Your task to perform on an android device: Add "rayovac triple a" to the cart on costco.com Image 0: 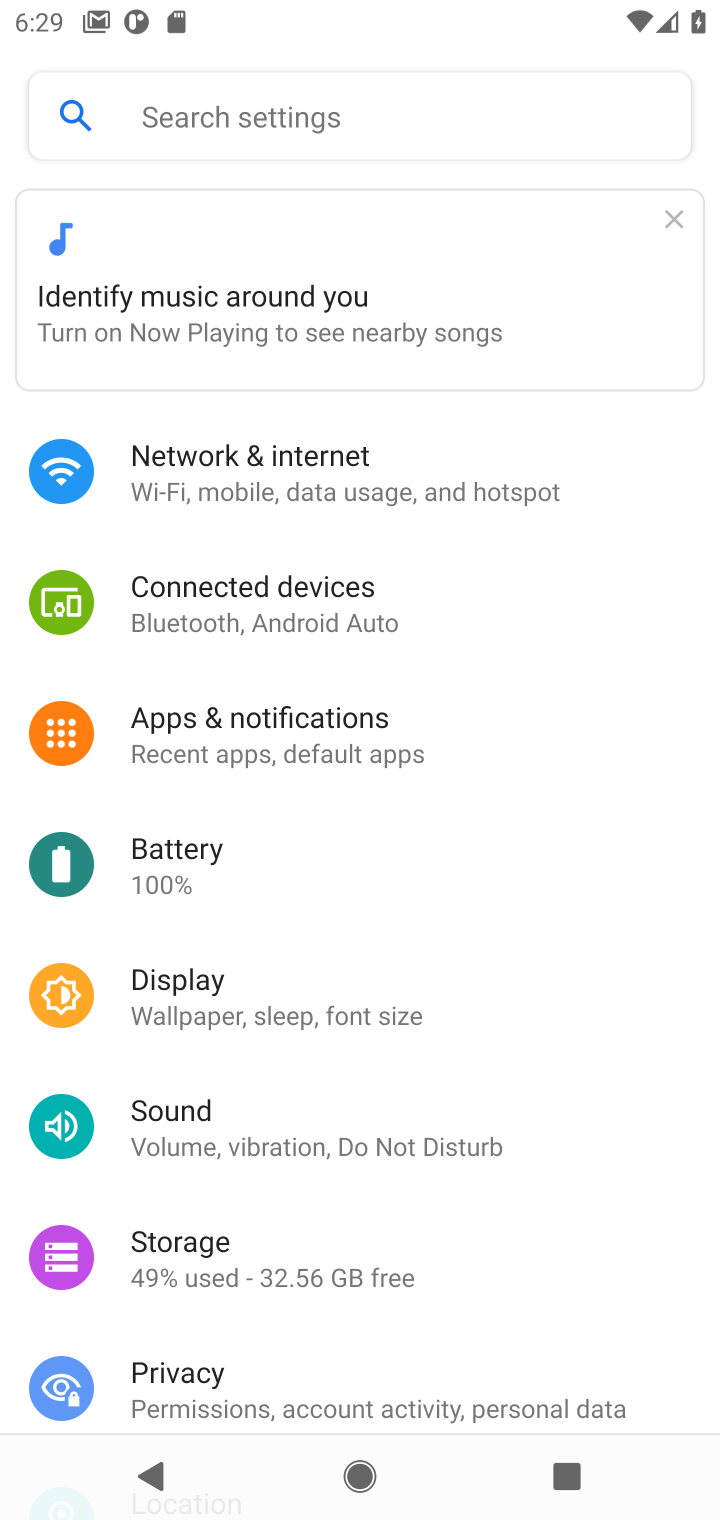
Step 0: press home button
Your task to perform on an android device: Add "rayovac triple a" to the cart on costco.com Image 1: 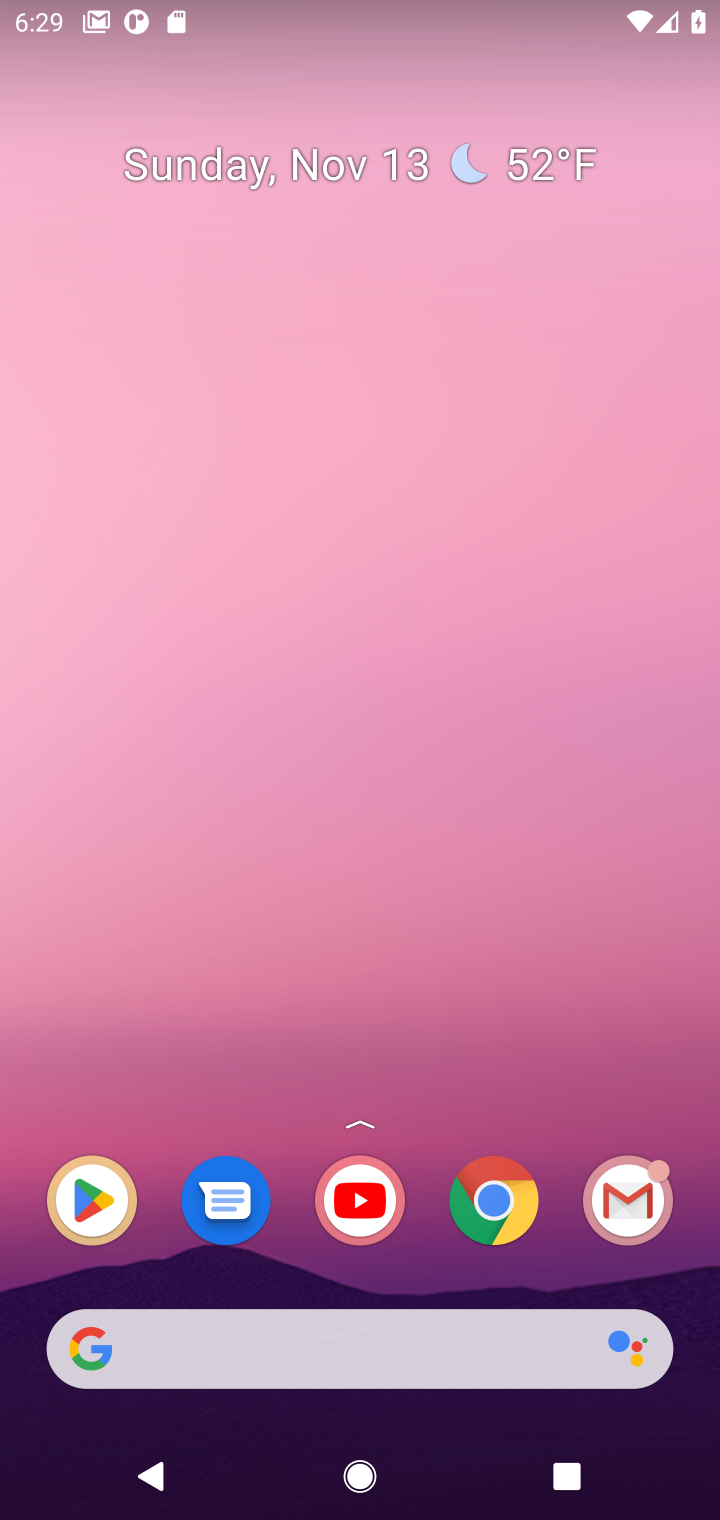
Step 1: click (497, 1213)
Your task to perform on an android device: Add "rayovac triple a" to the cart on costco.com Image 2: 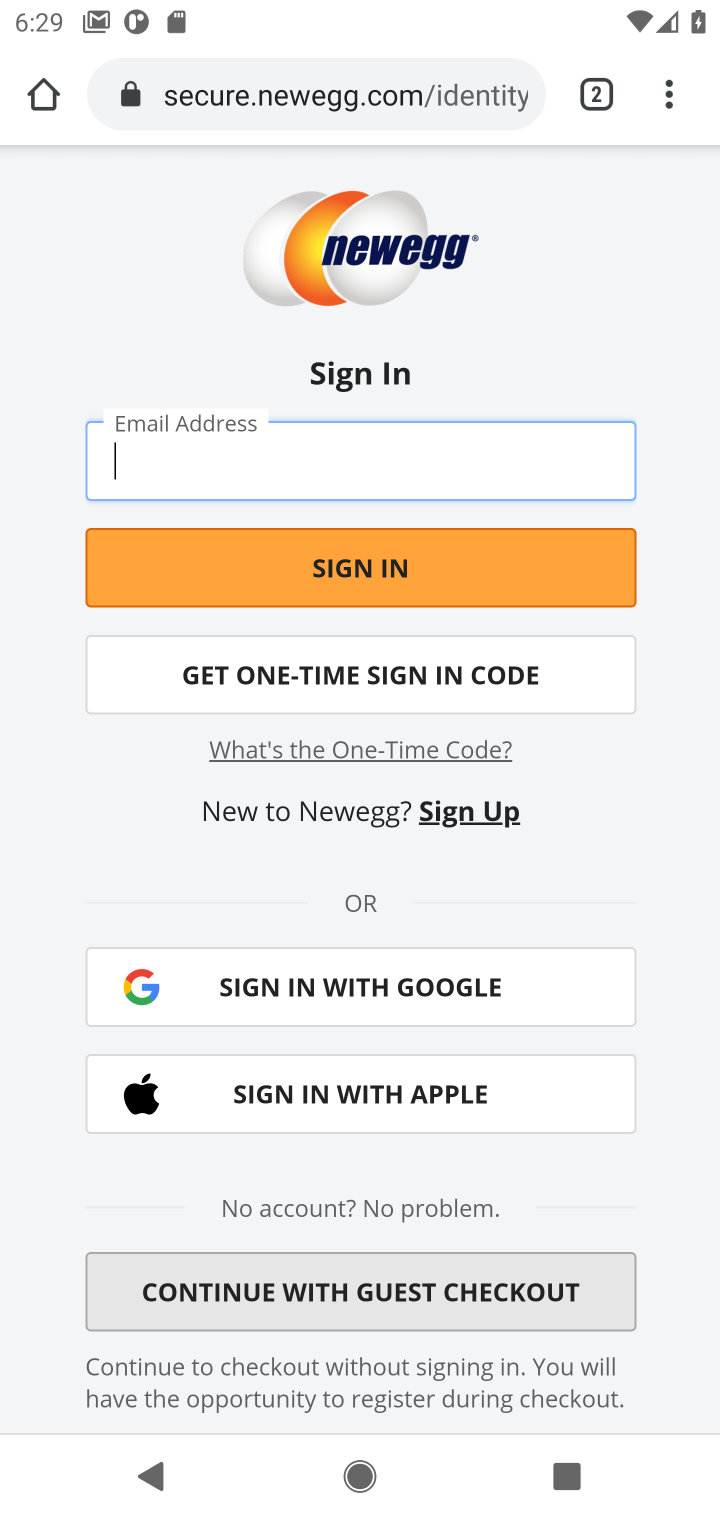
Step 2: click (596, 95)
Your task to perform on an android device: Add "rayovac triple a" to the cart on costco.com Image 3: 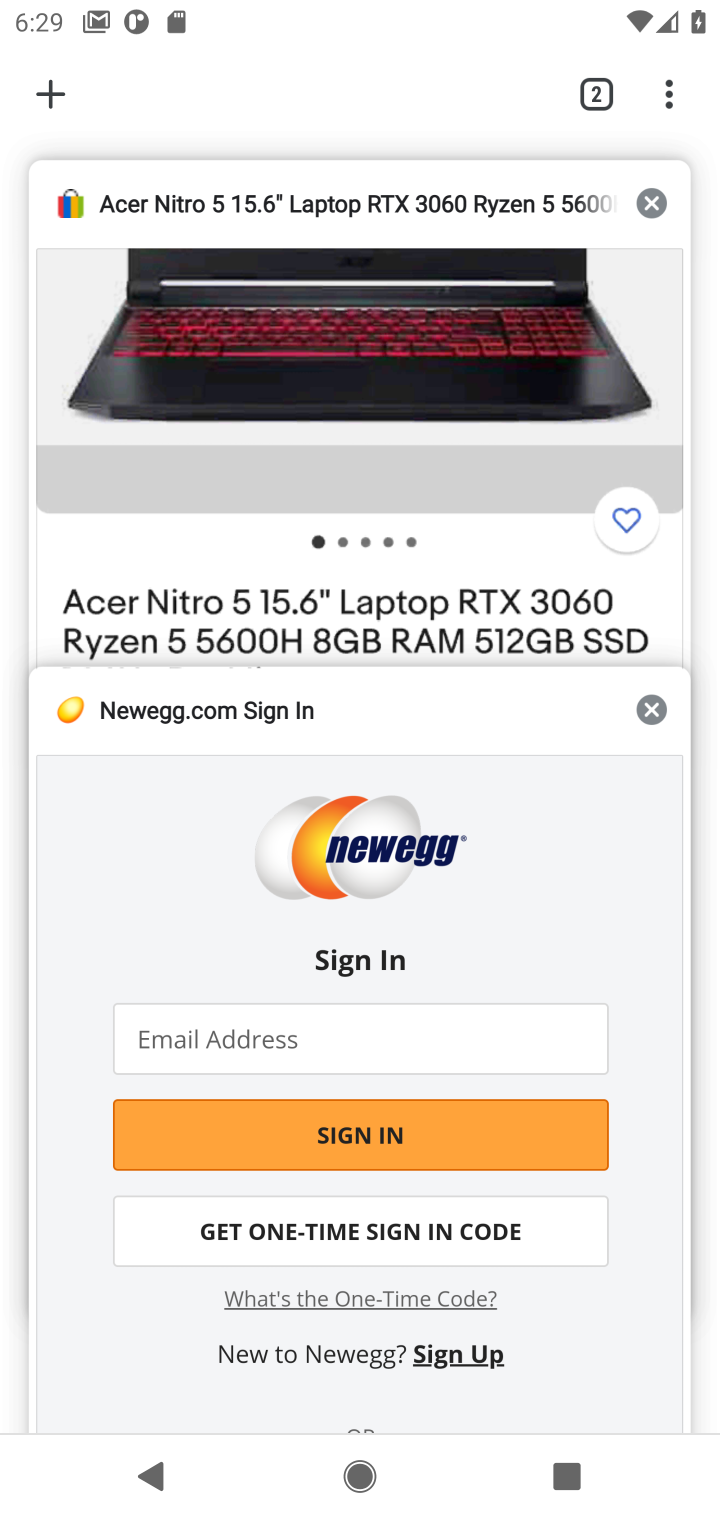
Step 3: click (44, 93)
Your task to perform on an android device: Add "rayovac triple a" to the cart on costco.com Image 4: 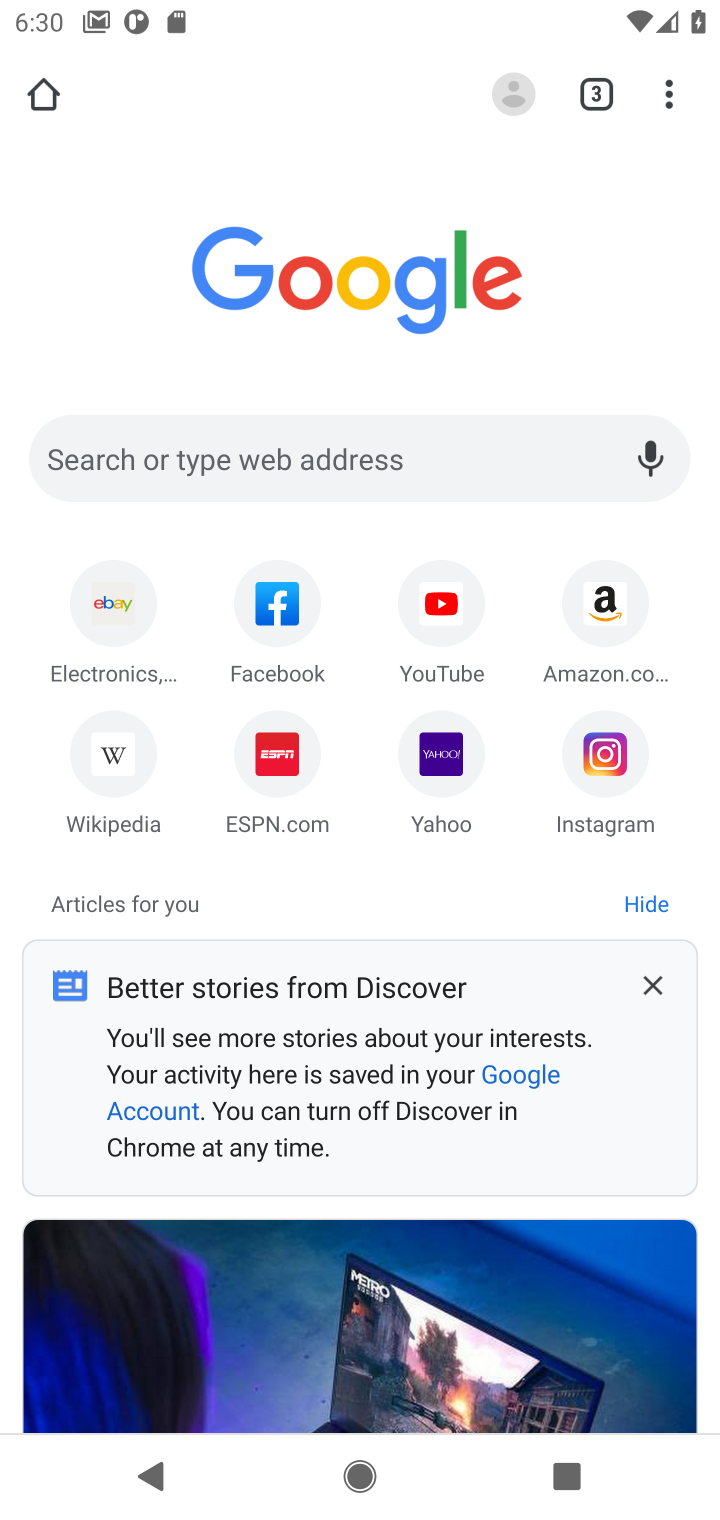
Step 4: click (249, 435)
Your task to perform on an android device: Add "rayovac triple a" to the cart on costco.com Image 5: 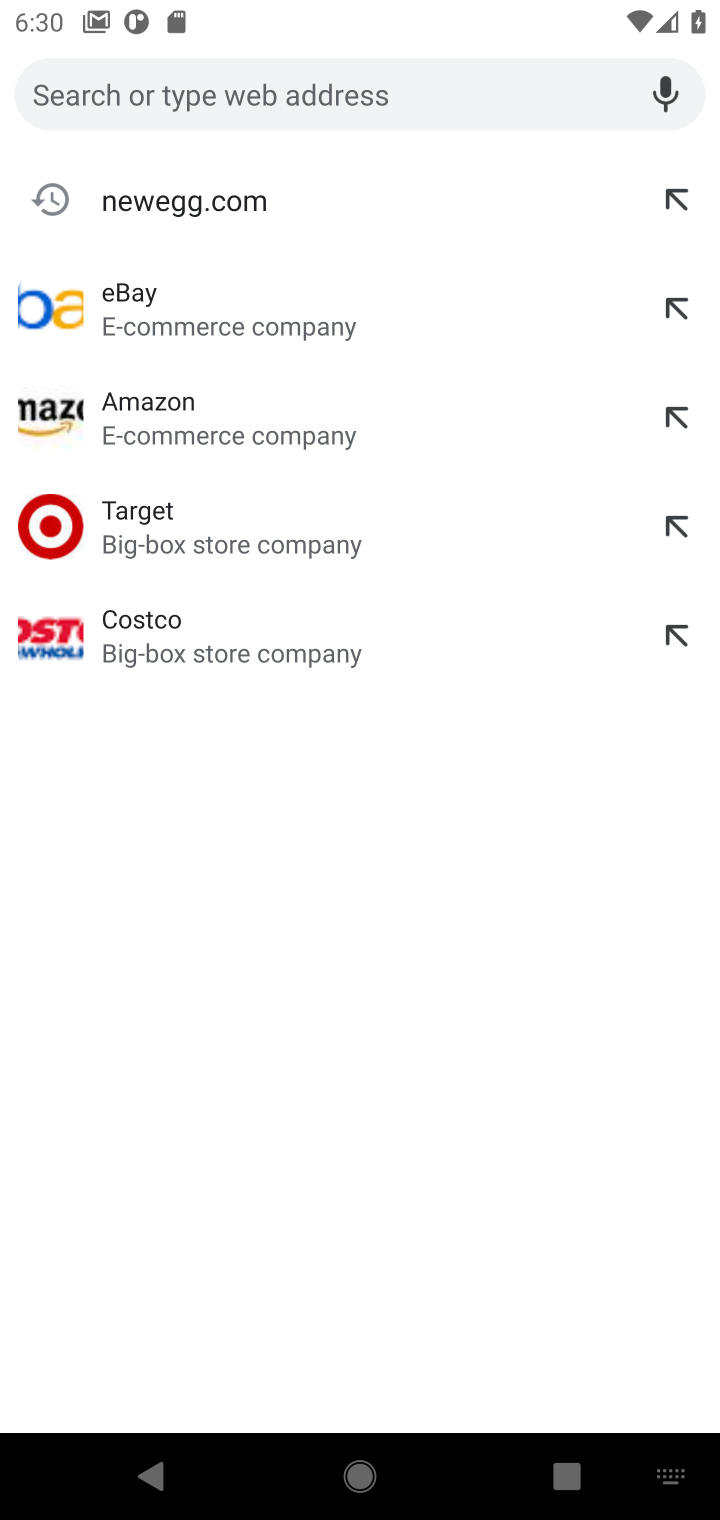
Step 5: click (191, 646)
Your task to perform on an android device: Add "rayovac triple a" to the cart on costco.com Image 6: 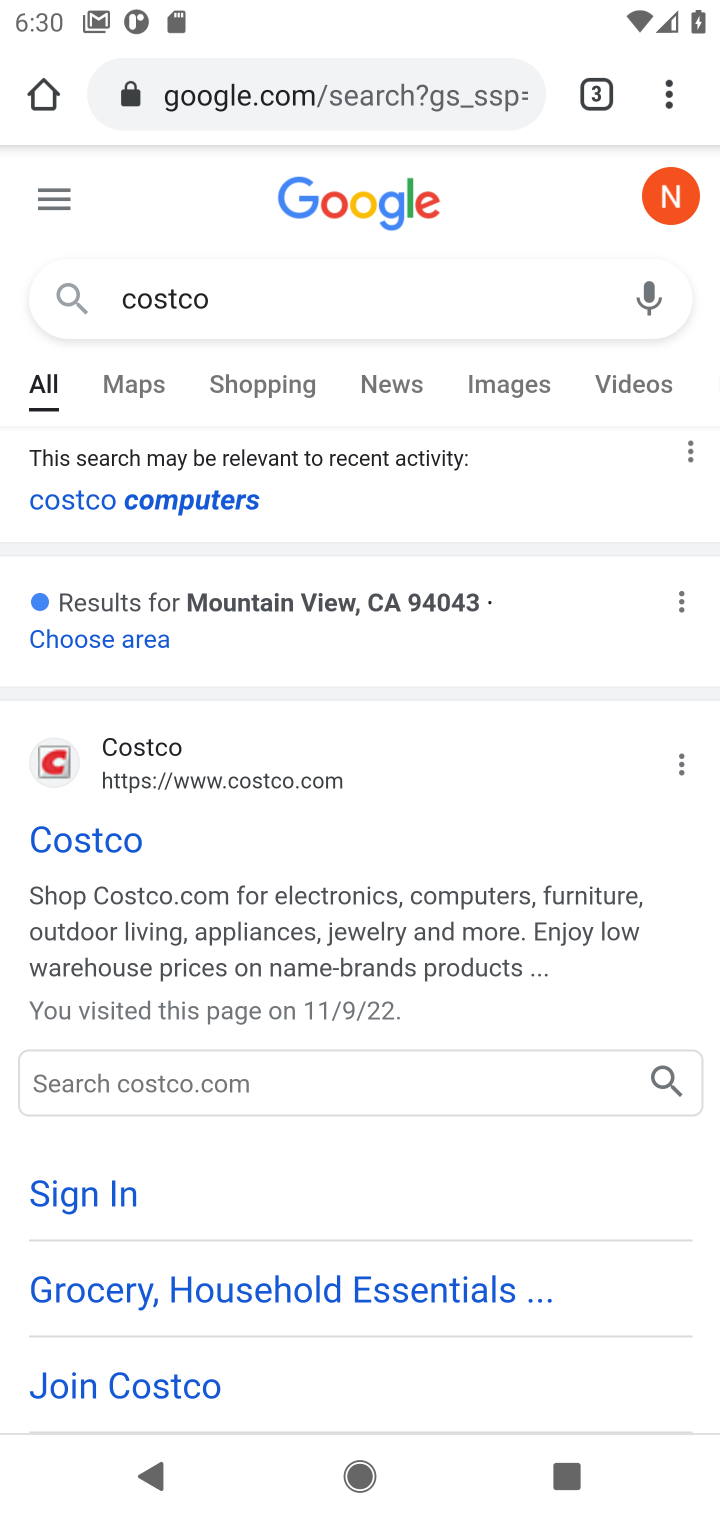
Step 6: click (129, 1088)
Your task to perform on an android device: Add "rayovac triple a" to the cart on costco.com Image 7: 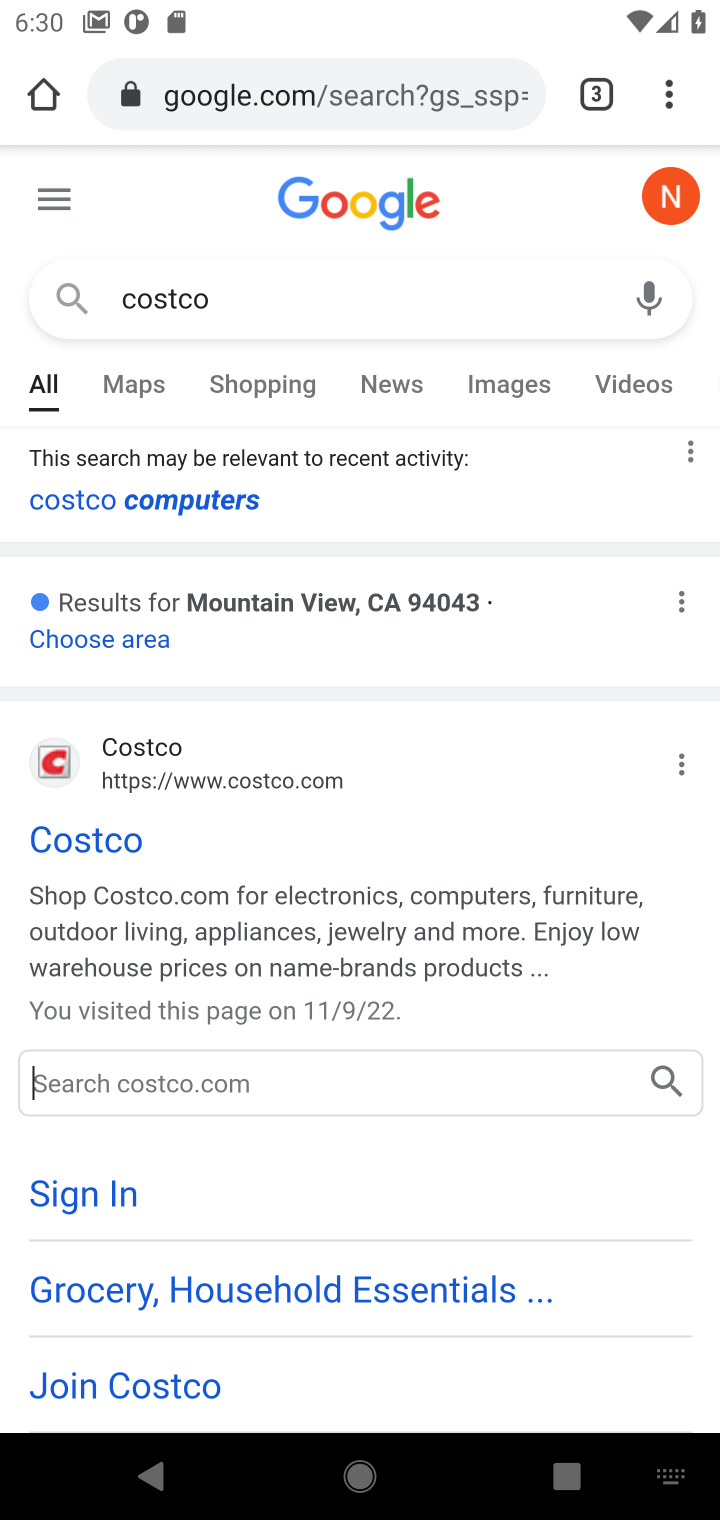
Step 7: type "rayovac triple a battery"
Your task to perform on an android device: Add "rayovac triple a" to the cart on costco.com Image 8: 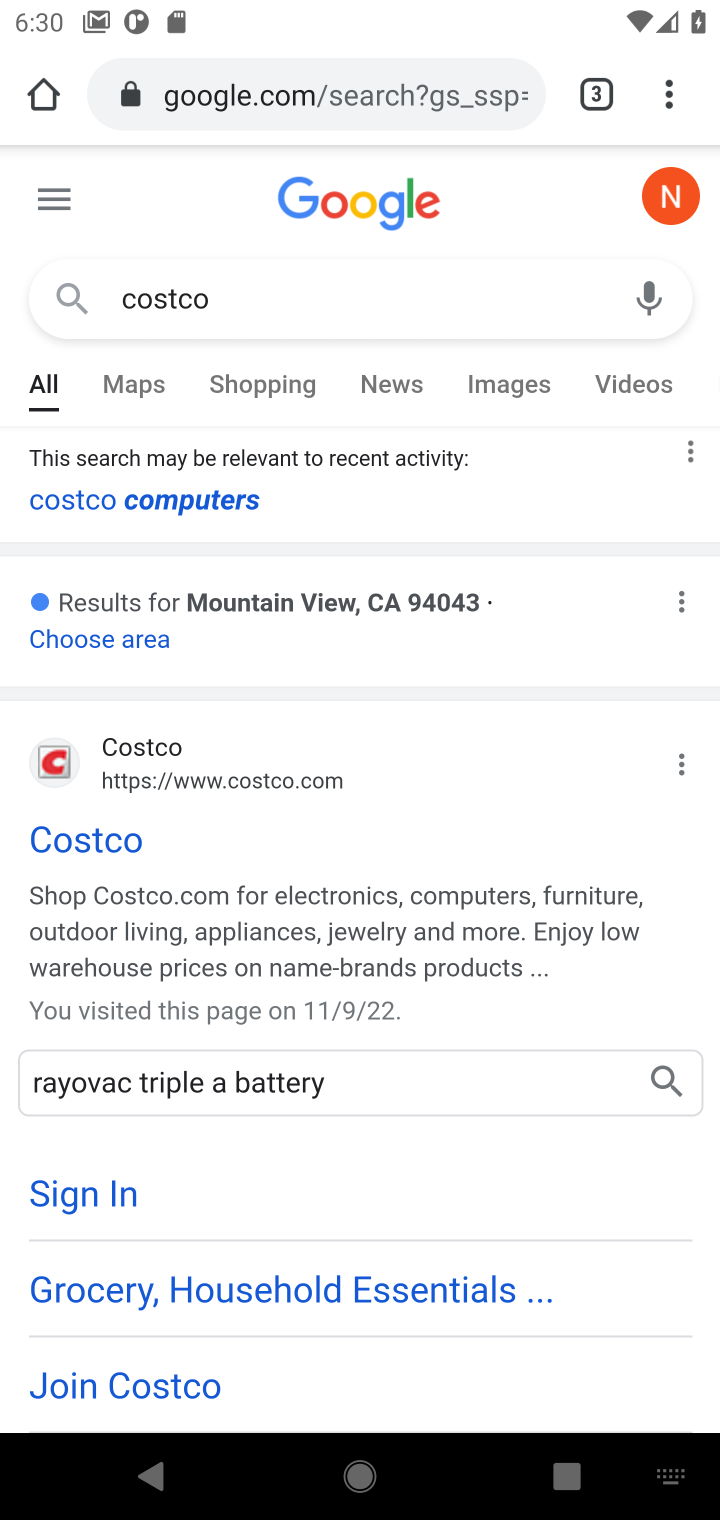
Step 8: click (676, 1079)
Your task to perform on an android device: Add "rayovac triple a" to the cart on costco.com Image 9: 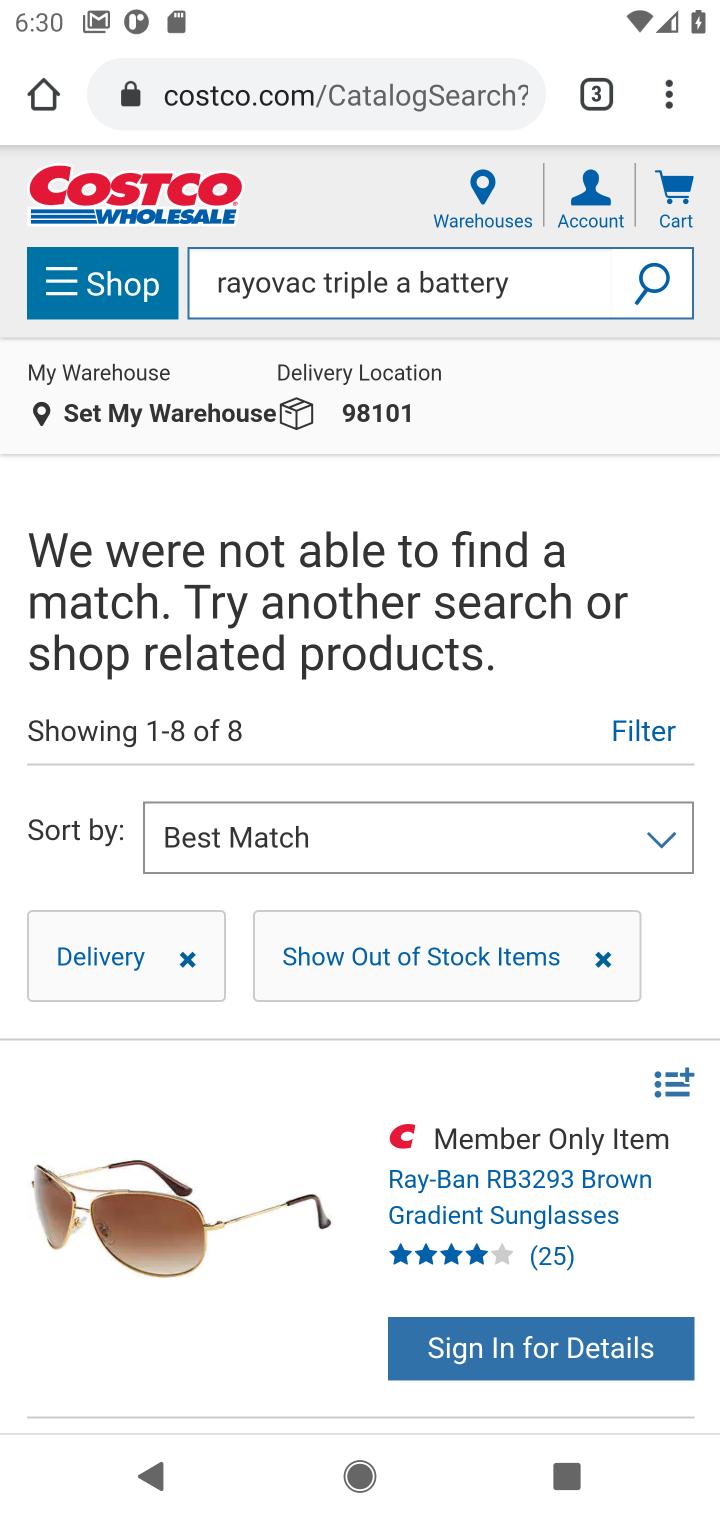
Step 9: task complete